Your task to perform on an android device: Open calendar and show me the fourth week of next month Image 0: 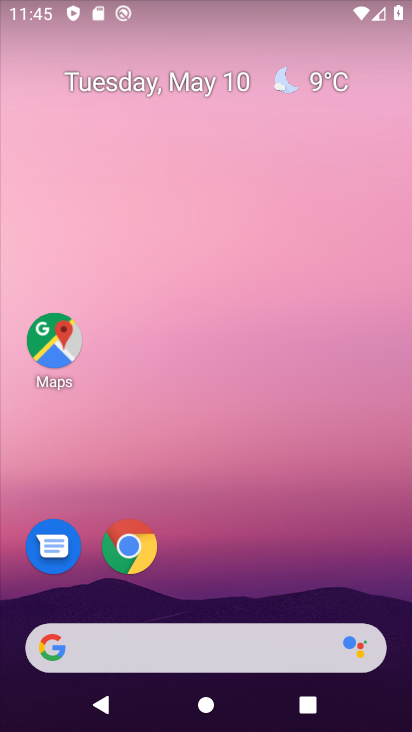
Step 0: drag from (223, 507) to (285, 34)
Your task to perform on an android device: Open calendar and show me the fourth week of next month Image 1: 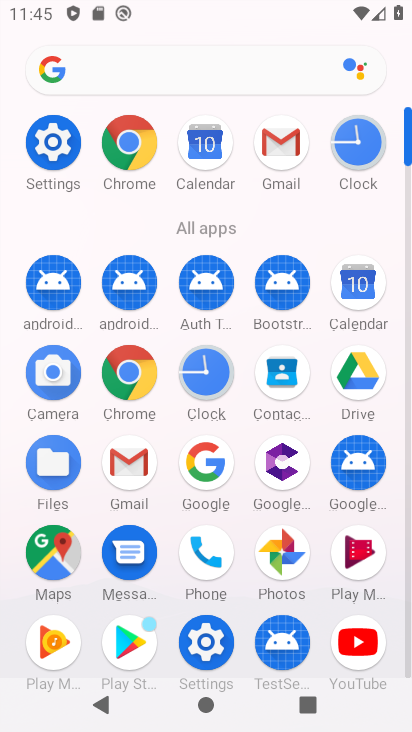
Step 1: click (194, 165)
Your task to perform on an android device: Open calendar and show me the fourth week of next month Image 2: 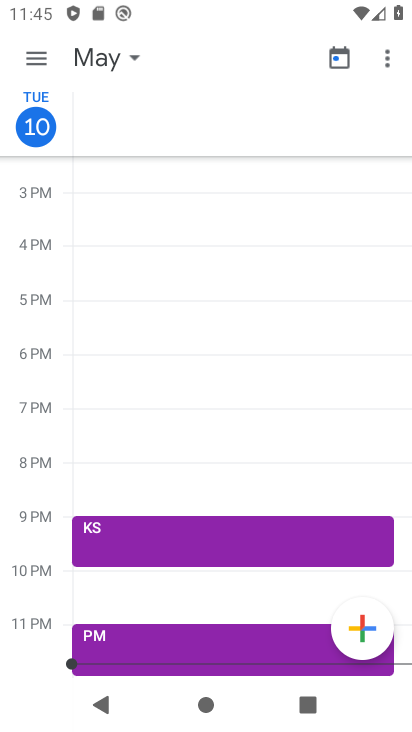
Step 2: click (137, 55)
Your task to perform on an android device: Open calendar and show me the fourth week of next month Image 3: 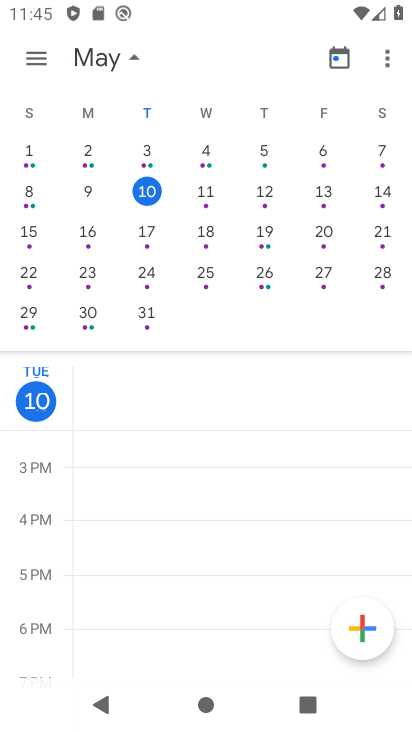
Step 3: drag from (385, 246) to (0, 163)
Your task to perform on an android device: Open calendar and show me the fourth week of next month Image 4: 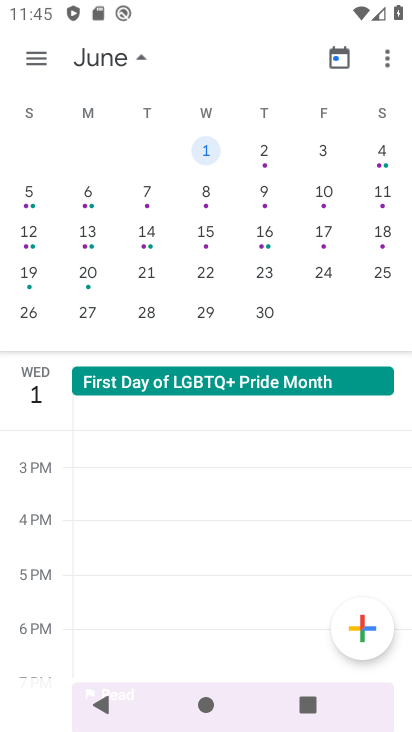
Step 4: click (37, 61)
Your task to perform on an android device: Open calendar and show me the fourth week of next month Image 5: 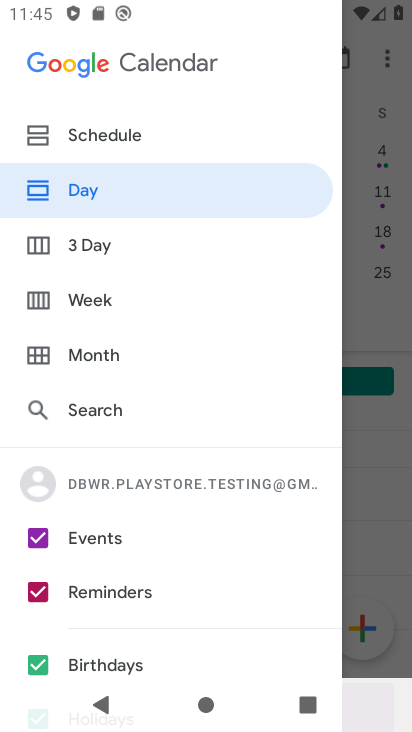
Step 5: click (91, 302)
Your task to perform on an android device: Open calendar and show me the fourth week of next month Image 6: 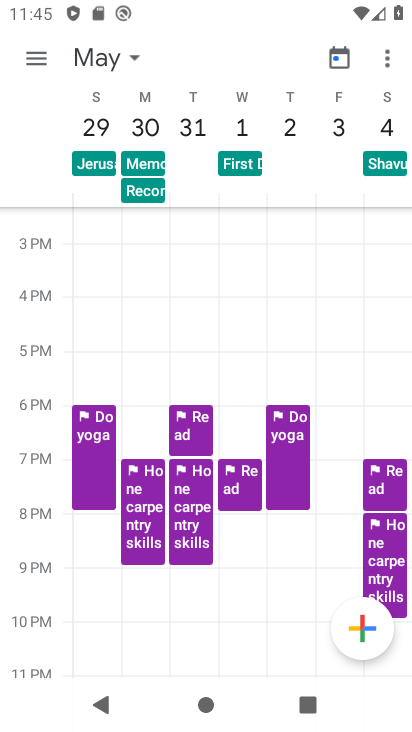
Step 6: task complete